Your task to perform on an android device: toggle airplane mode Image 0: 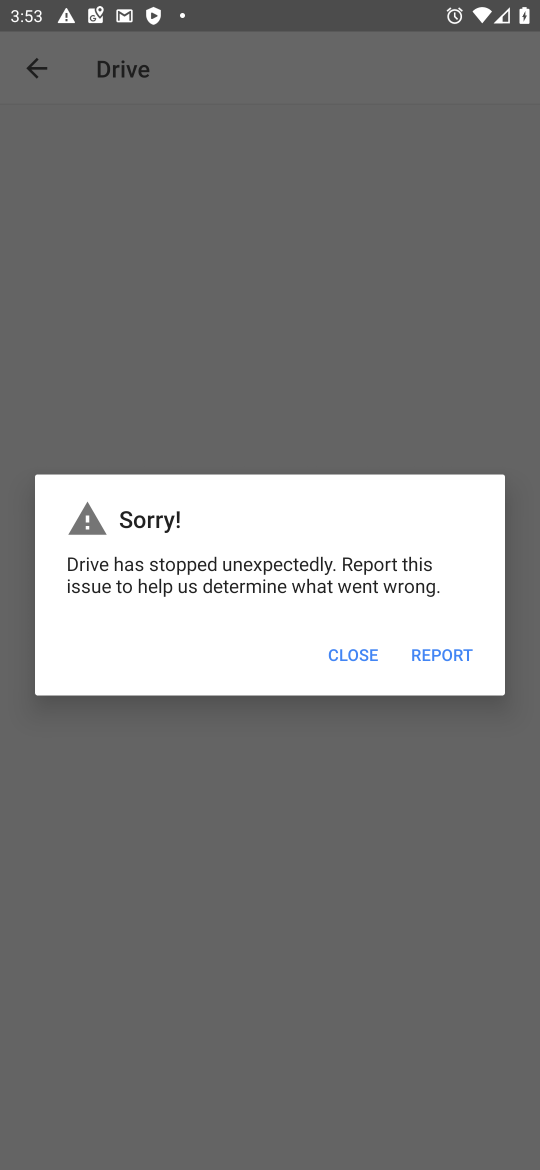
Step 0: press home button
Your task to perform on an android device: toggle airplane mode Image 1: 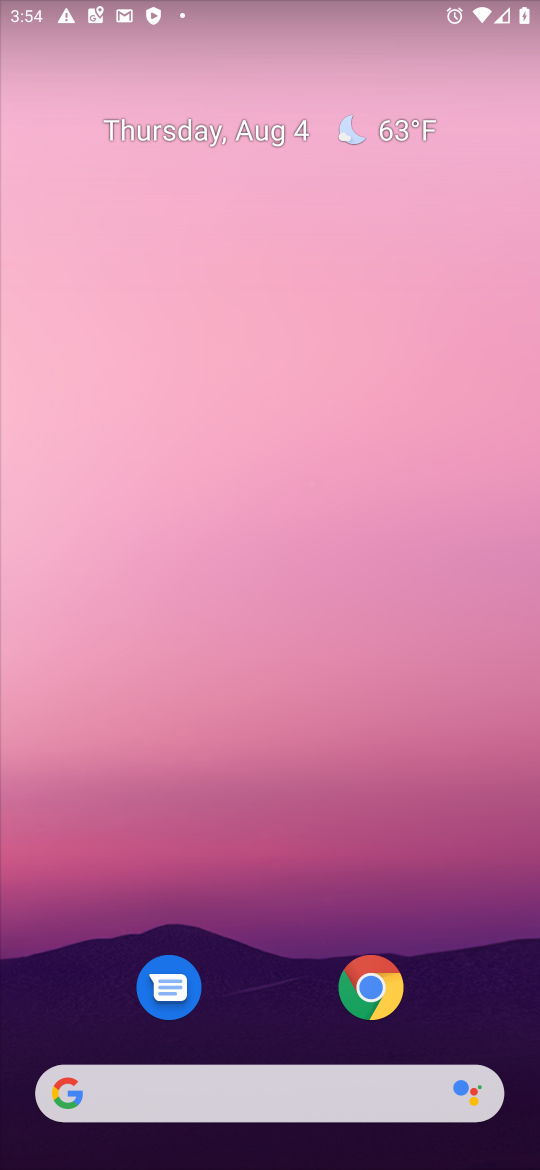
Step 1: drag from (283, 462) to (335, 111)
Your task to perform on an android device: toggle airplane mode Image 2: 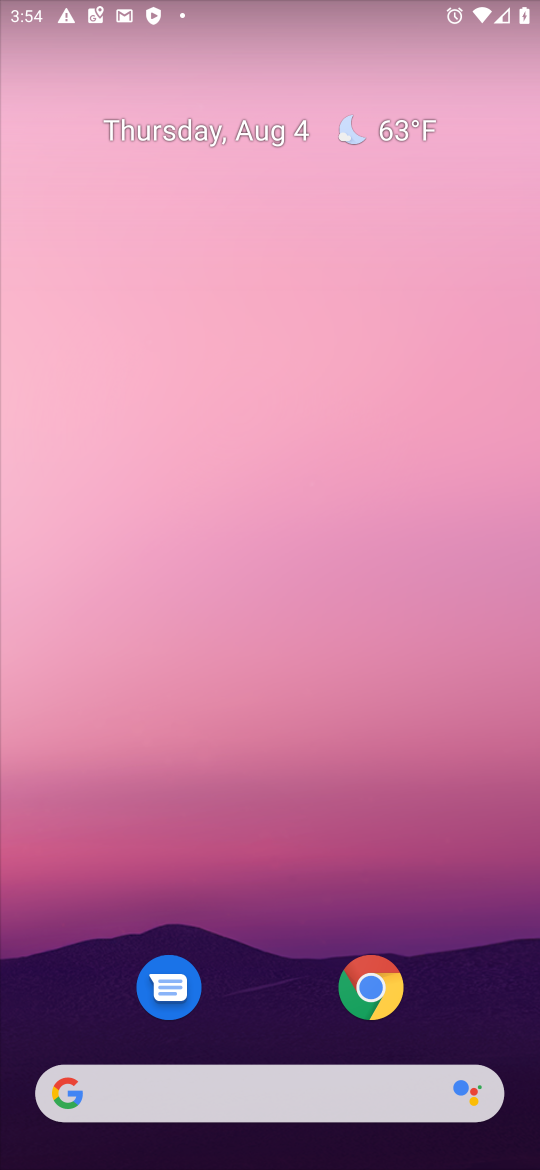
Step 2: drag from (327, 998) to (249, 4)
Your task to perform on an android device: toggle airplane mode Image 3: 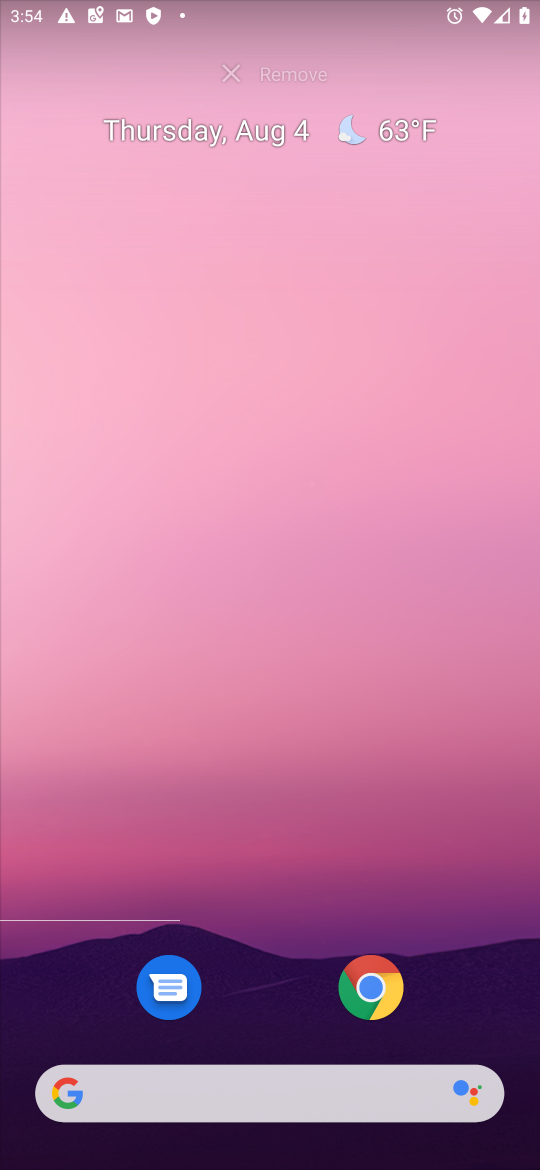
Step 3: click (335, 692)
Your task to perform on an android device: toggle airplane mode Image 4: 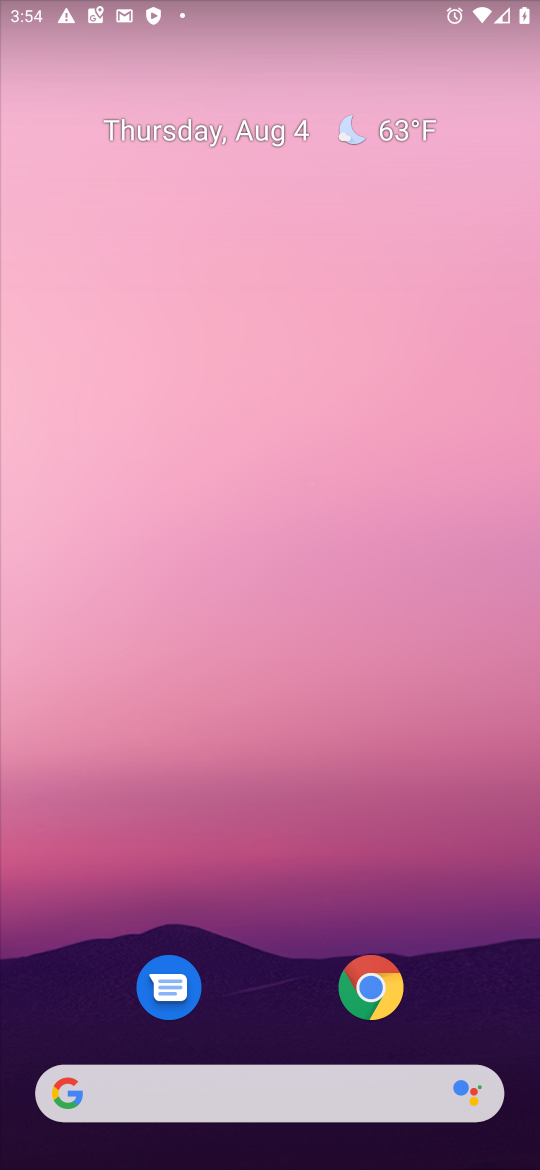
Step 4: drag from (207, 789) to (234, 82)
Your task to perform on an android device: toggle airplane mode Image 5: 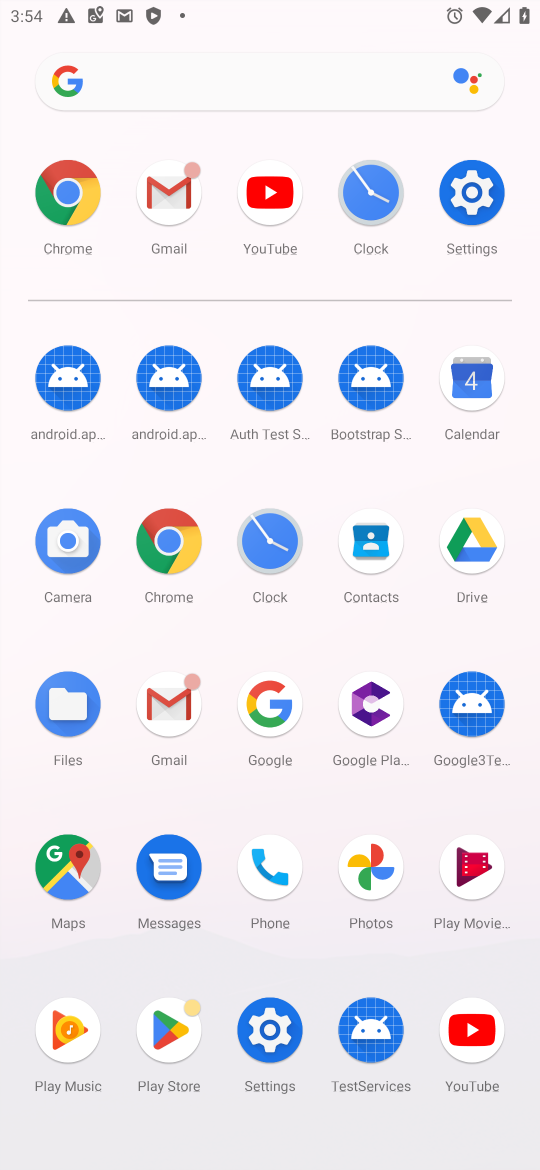
Step 5: click (476, 206)
Your task to perform on an android device: toggle airplane mode Image 6: 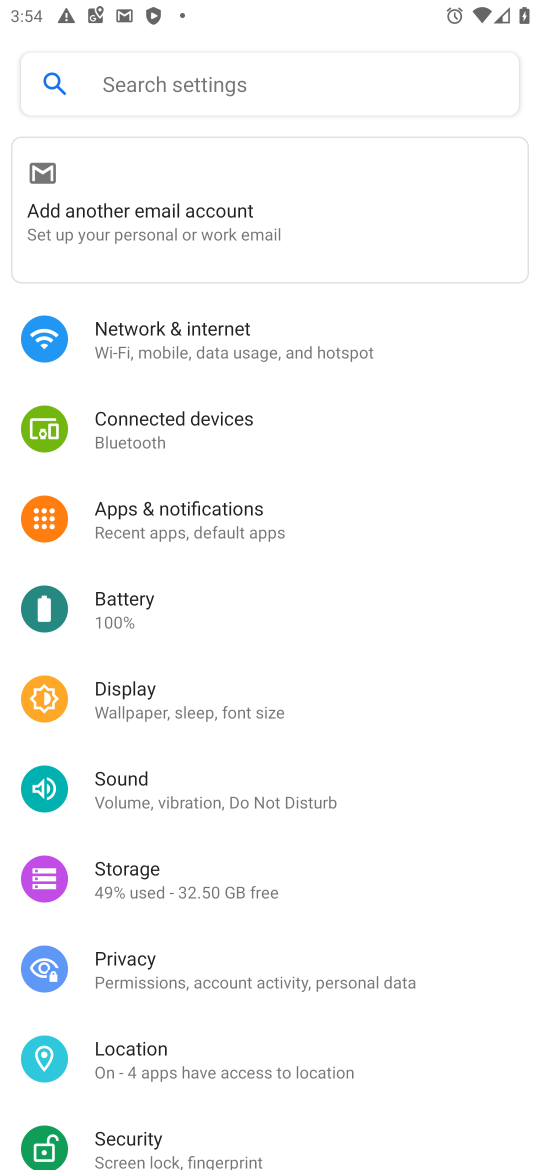
Step 6: click (189, 348)
Your task to perform on an android device: toggle airplane mode Image 7: 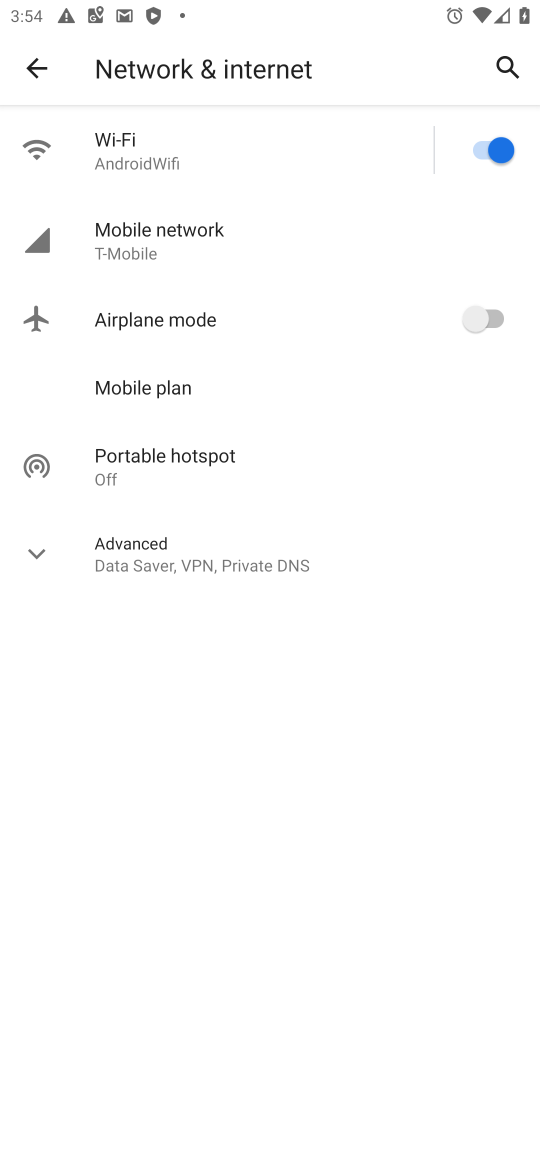
Step 7: click (484, 321)
Your task to perform on an android device: toggle airplane mode Image 8: 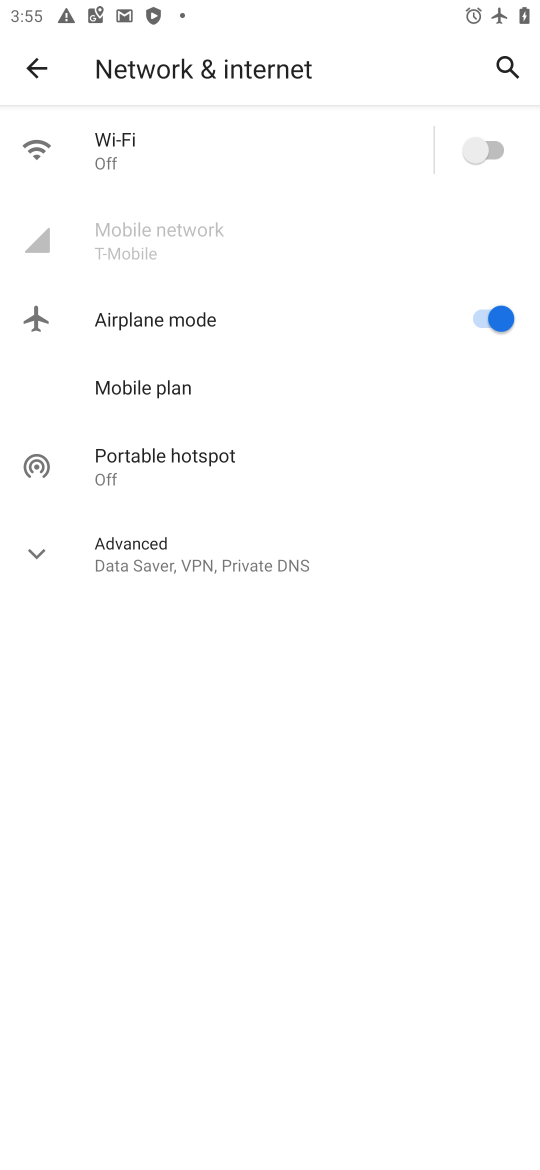
Step 8: task complete